Your task to perform on an android device: Turn off the flashlight Image 0: 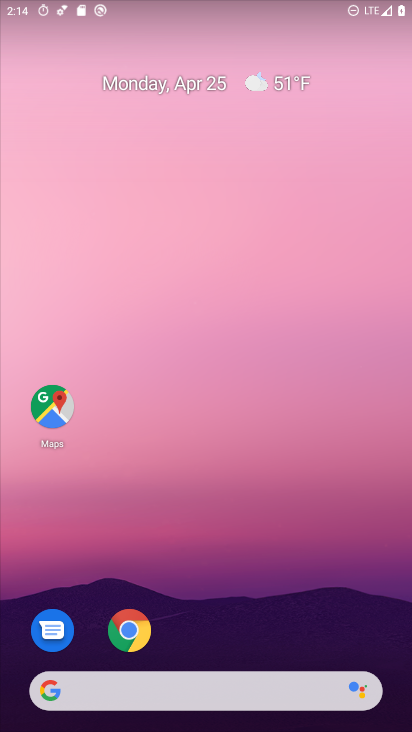
Step 0: drag from (193, 599) to (264, 10)
Your task to perform on an android device: Turn off the flashlight Image 1: 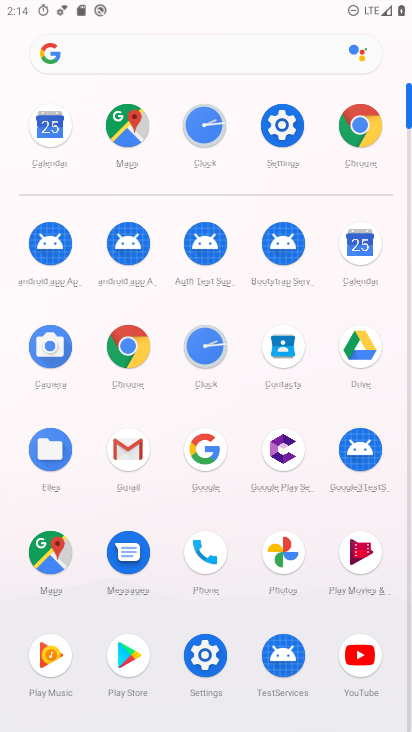
Step 1: click (280, 128)
Your task to perform on an android device: Turn off the flashlight Image 2: 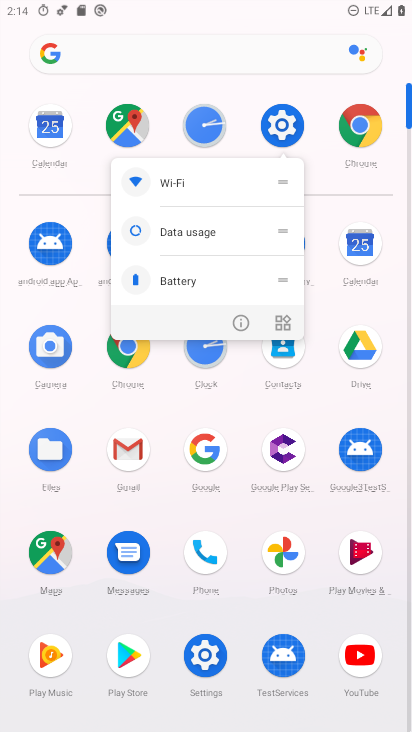
Step 2: click (234, 320)
Your task to perform on an android device: Turn off the flashlight Image 3: 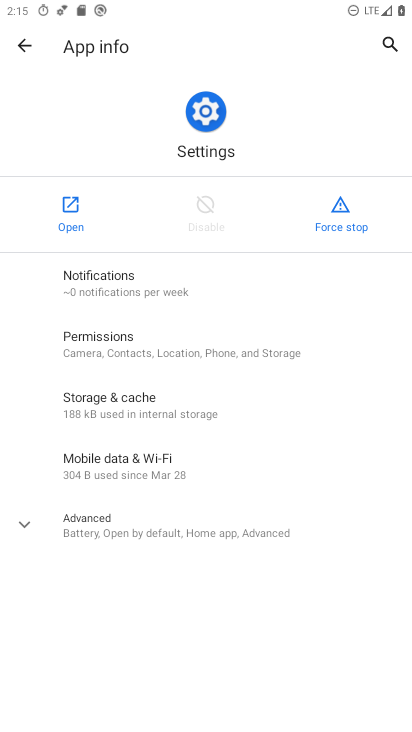
Step 3: click (53, 213)
Your task to perform on an android device: Turn off the flashlight Image 4: 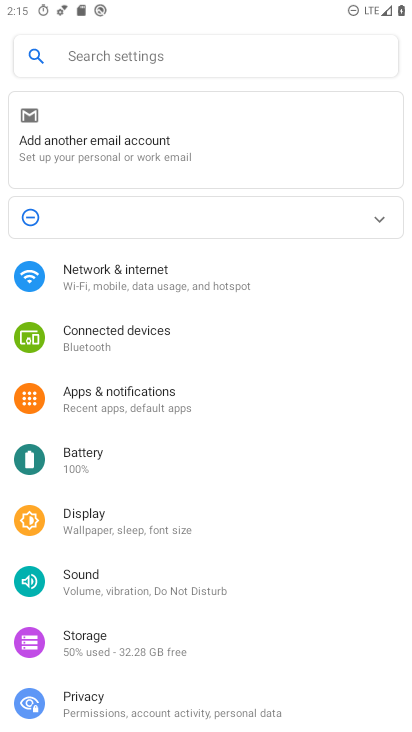
Step 4: click (205, 63)
Your task to perform on an android device: Turn off the flashlight Image 5: 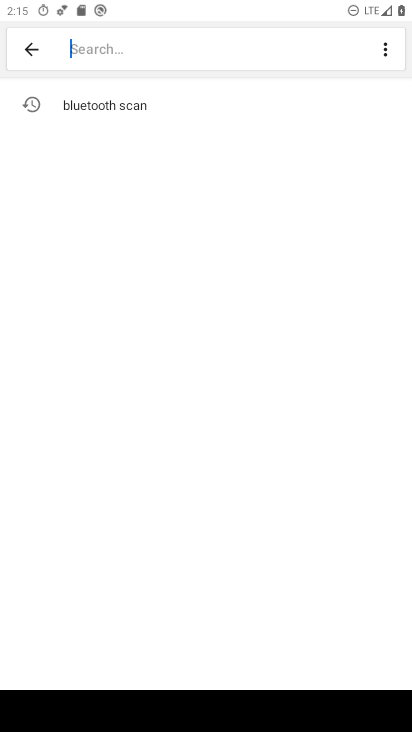
Step 5: type "flashlight"
Your task to perform on an android device: Turn off the flashlight Image 6: 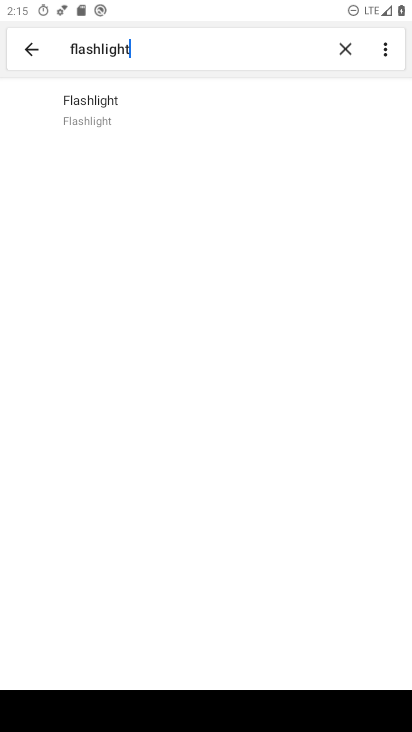
Step 6: click (122, 126)
Your task to perform on an android device: Turn off the flashlight Image 7: 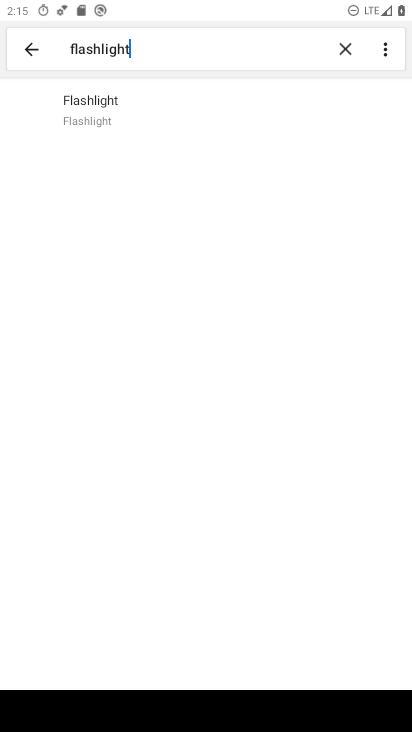
Step 7: task complete